Your task to perform on an android device: Go to Yahoo.com Image 0: 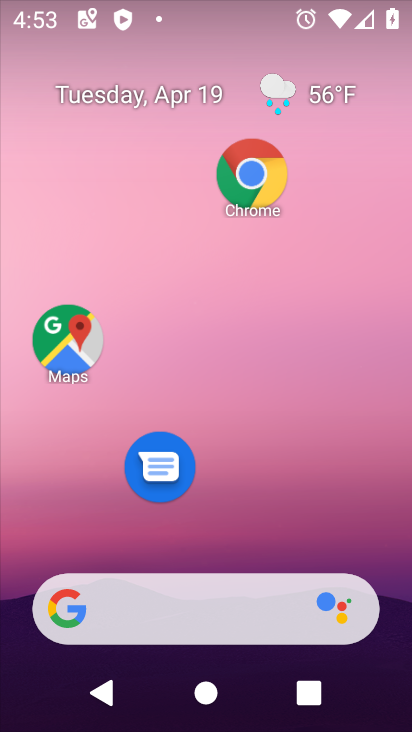
Step 0: click (251, 173)
Your task to perform on an android device: Go to Yahoo.com Image 1: 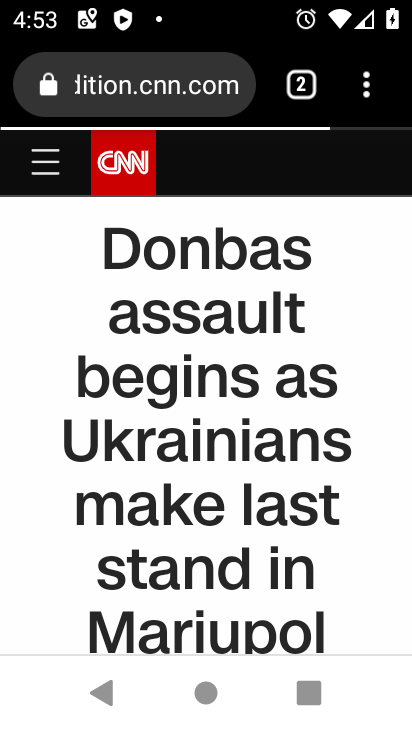
Step 1: click (191, 84)
Your task to perform on an android device: Go to Yahoo.com Image 2: 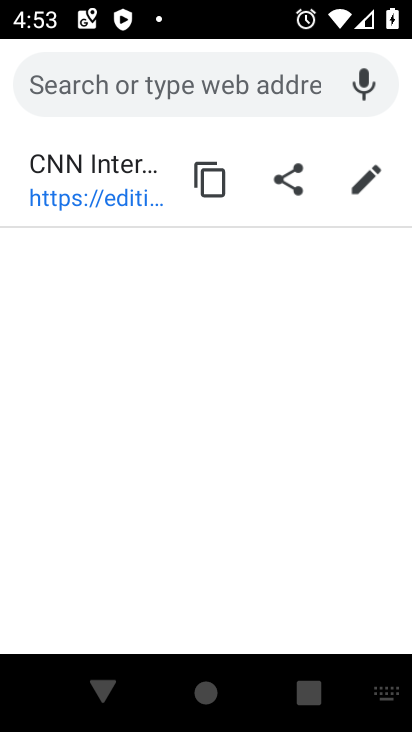
Step 2: type "yahoo.com"
Your task to perform on an android device: Go to Yahoo.com Image 3: 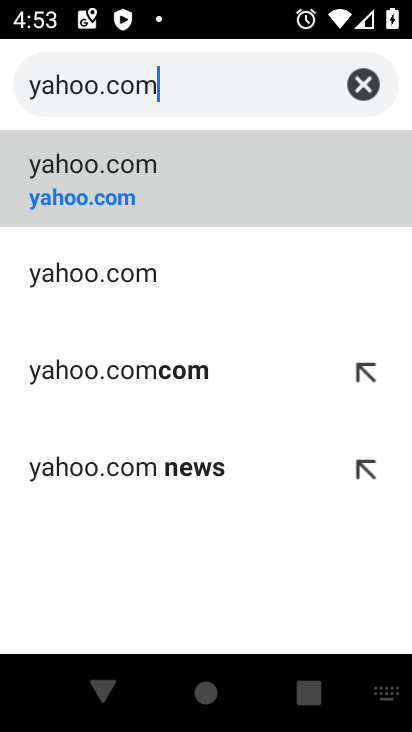
Step 3: click (76, 167)
Your task to perform on an android device: Go to Yahoo.com Image 4: 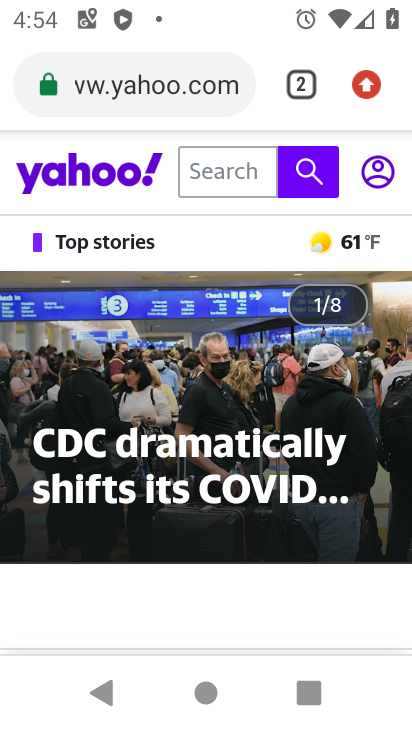
Step 4: task complete